Your task to perform on an android device: Show me the alarms in the clock app Image 0: 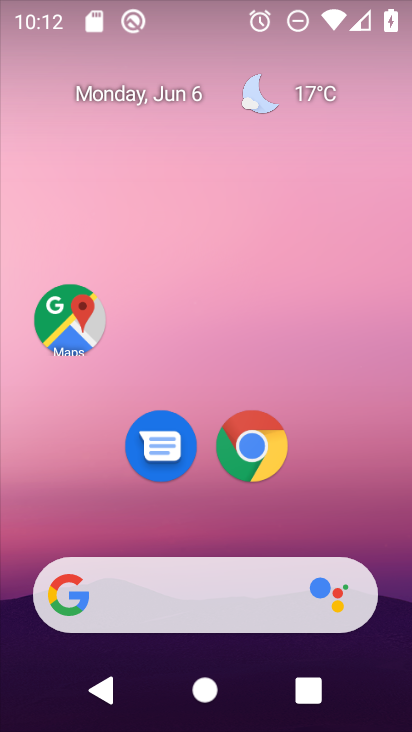
Step 0: click (64, 318)
Your task to perform on an android device: Show me the alarms in the clock app Image 1: 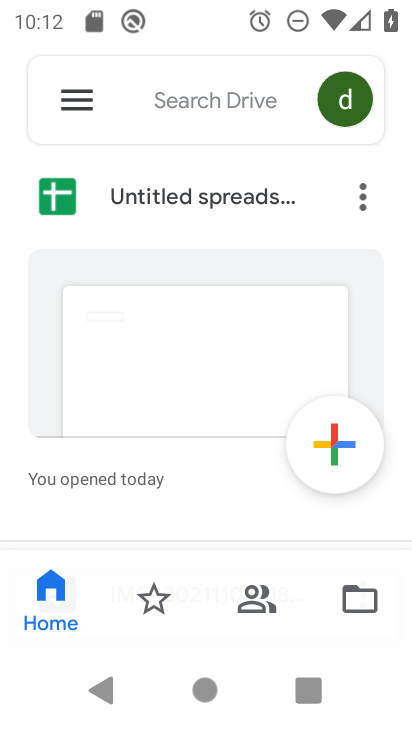
Step 1: press home button
Your task to perform on an android device: Show me the alarms in the clock app Image 2: 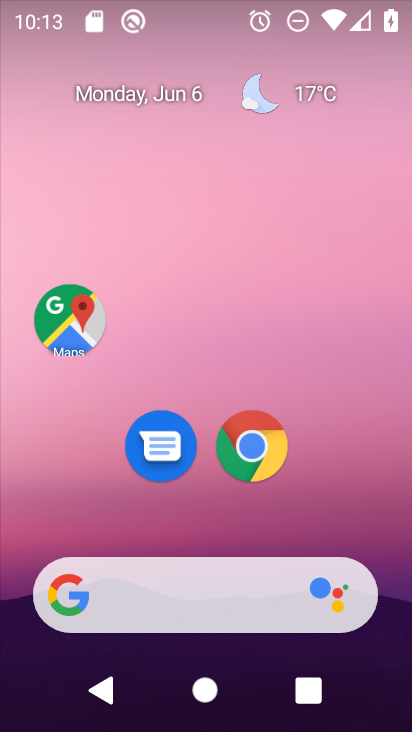
Step 2: drag from (191, 512) to (146, 165)
Your task to perform on an android device: Show me the alarms in the clock app Image 3: 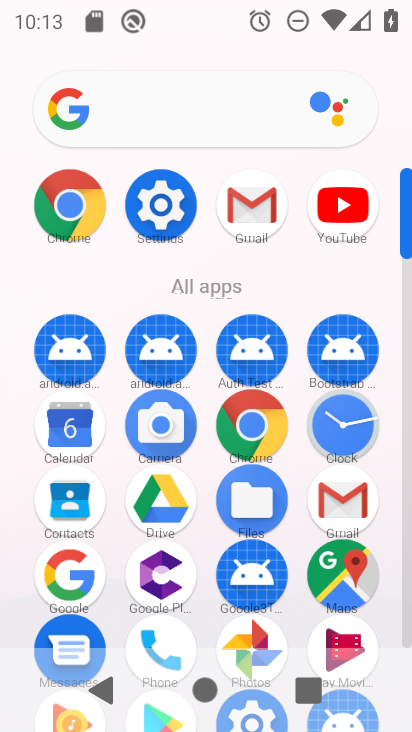
Step 3: click (342, 430)
Your task to perform on an android device: Show me the alarms in the clock app Image 4: 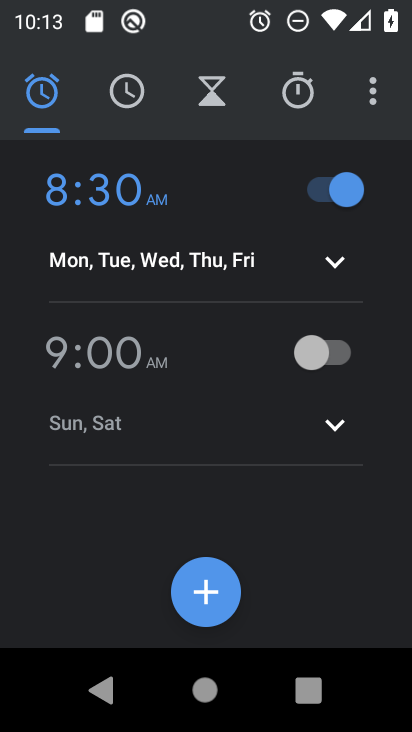
Step 4: task complete